Your task to perform on an android device: turn off javascript in the chrome app Image 0: 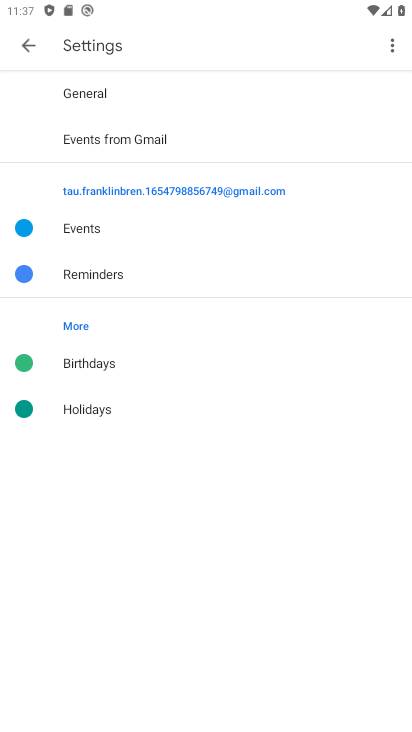
Step 0: press home button
Your task to perform on an android device: turn off javascript in the chrome app Image 1: 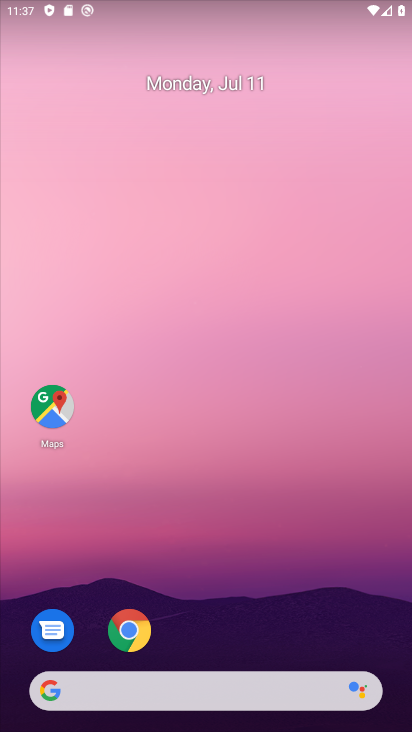
Step 1: click (127, 634)
Your task to perform on an android device: turn off javascript in the chrome app Image 2: 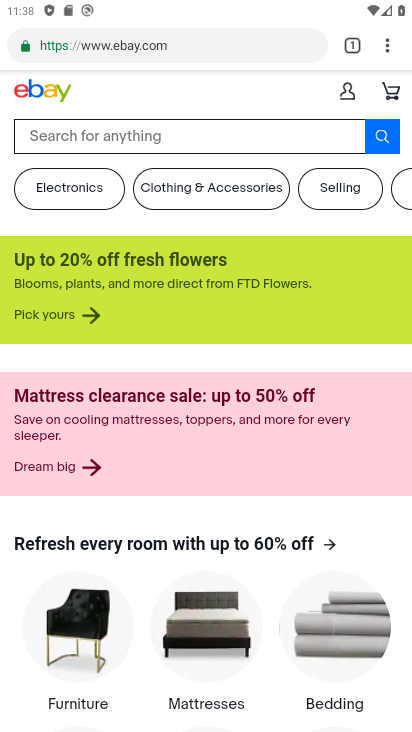
Step 2: click (390, 45)
Your task to perform on an android device: turn off javascript in the chrome app Image 3: 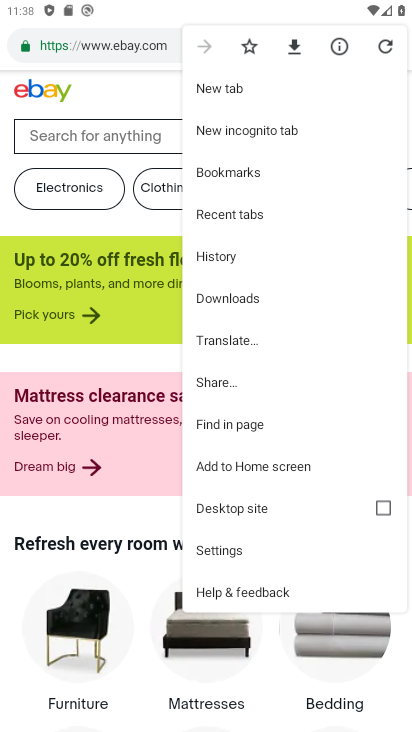
Step 3: click (227, 551)
Your task to perform on an android device: turn off javascript in the chrome app Image 4: 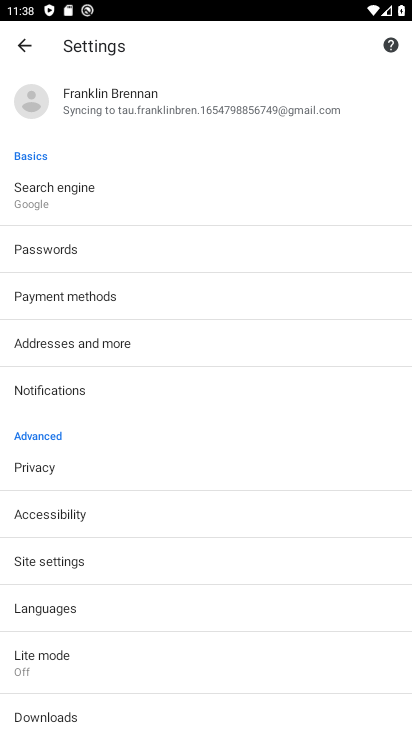
Step 4: click (58, 561)
Your task to perform on an android device: turn off javascript in the chrome app Image 5: 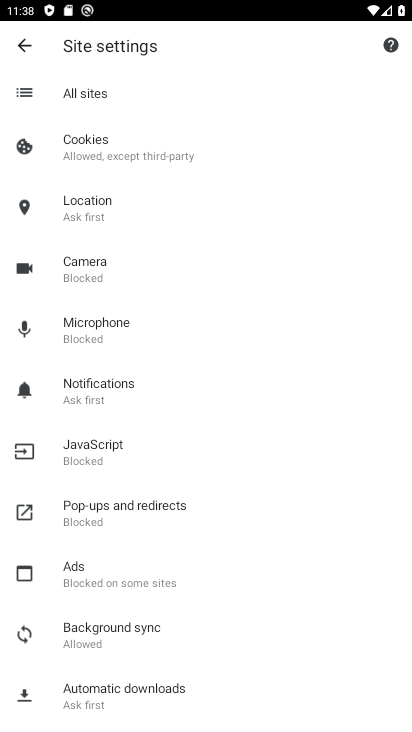
Step 5: click (122, 450)
Your task to perform on an android device: turn off javascript in the chrome app Image 6: 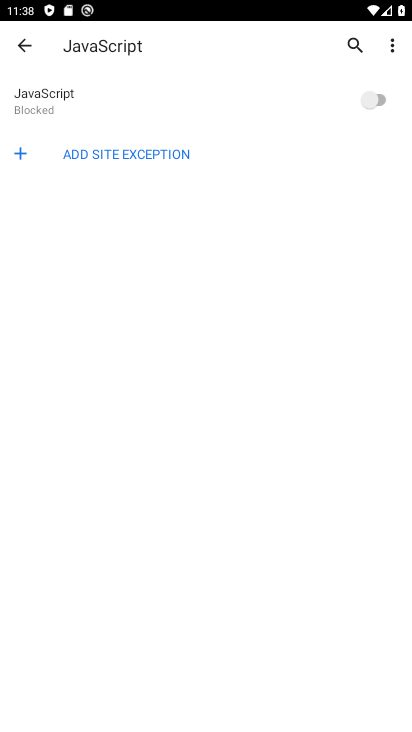
Step 6: task complete